Your task to perform on an android device: Open maps Image 0: 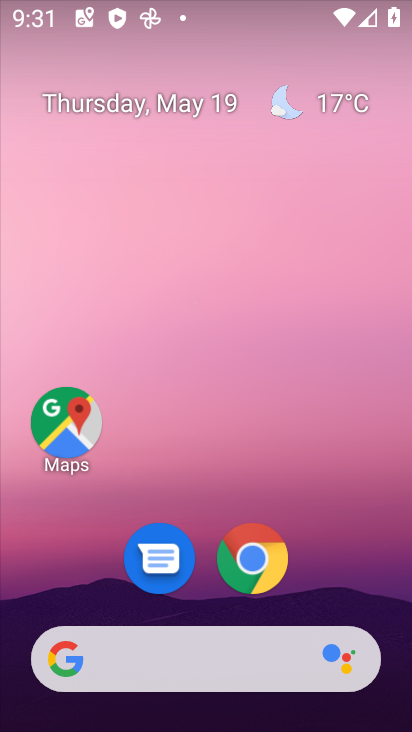
Step 0: drag from (206, 731) to (194, 79)
Your task to perform on an android device: Open maps Image 1: 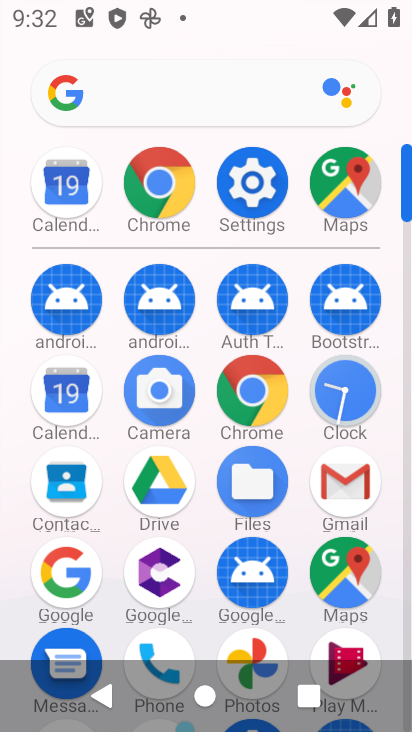
Step 1: click (361, 577)
Your task to perform on an android device: Open maps Image 2: 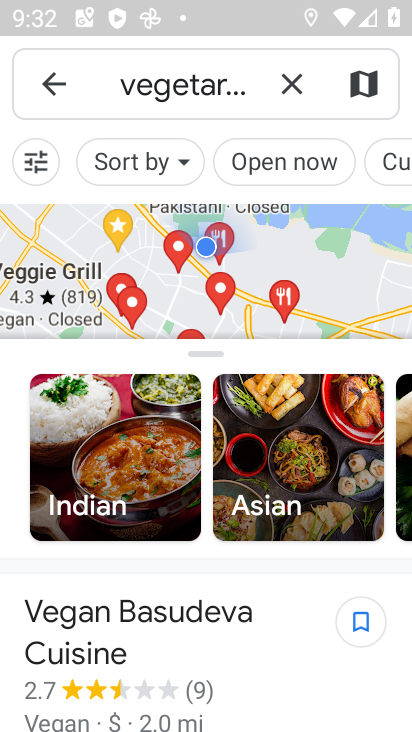
Step 2: task complete